Your task to perform on an android device: Toggle the flashlight Image 0: 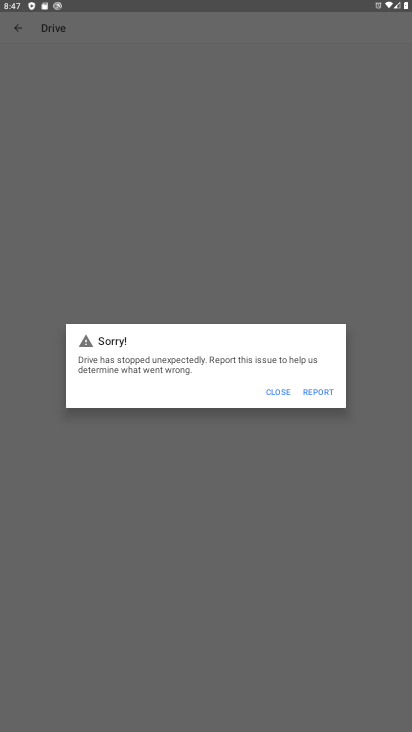
Step 0: press home button
Your task to perform on an android device: Toggle the flashlight Image 1: 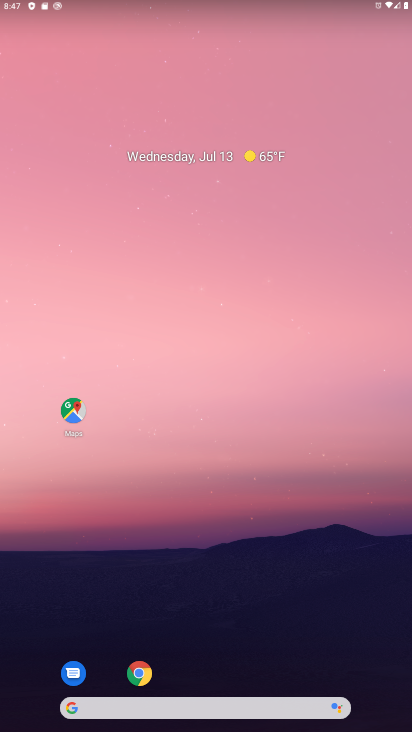
Step 1: drag from (174, 708) to (248, 134)
Your task to perform on an android device: Toggle the flashlight Image 2: 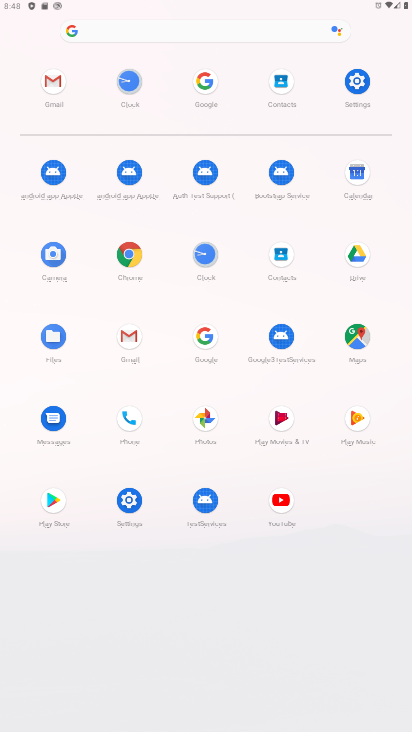
Step 2: click (359, 79)
Your task to perform on an android device: Toggle the flashlight Image 3: 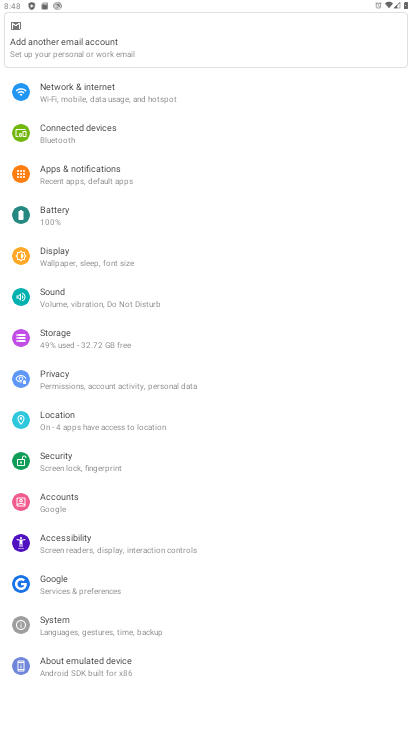
Step 3: click (91, 173)
Your task to perform on an android device: Toggle the flashlight Image 4: 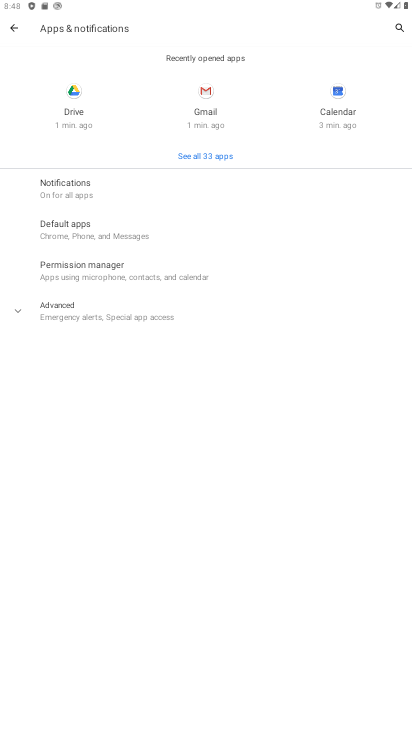
Step 4: press back button
Your task to perform on an android device: Toggle the flashlight Image 5: 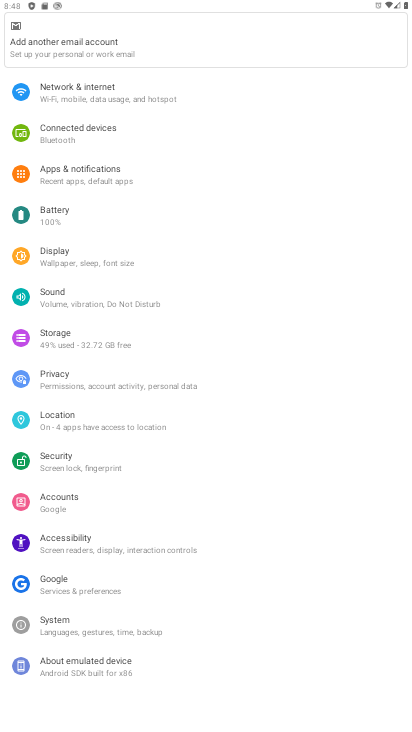
Step 5: click (84, 268)
Your task to perform on an android device: Toggle the flashlight Image 6: 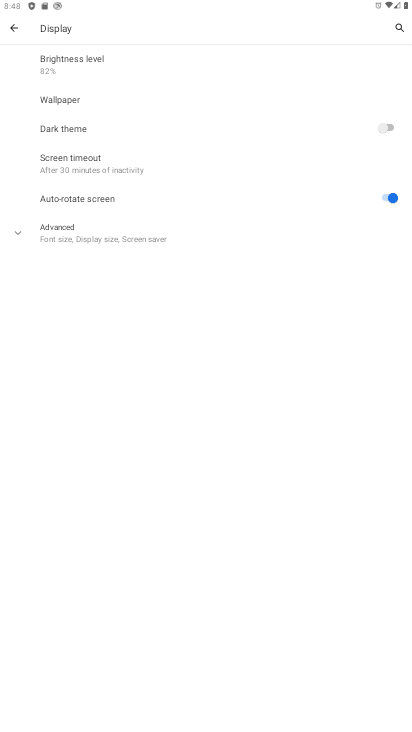
Step 6: click (83, 240)
Your task to perform on an android device: Toggle the flashlight Image 7: 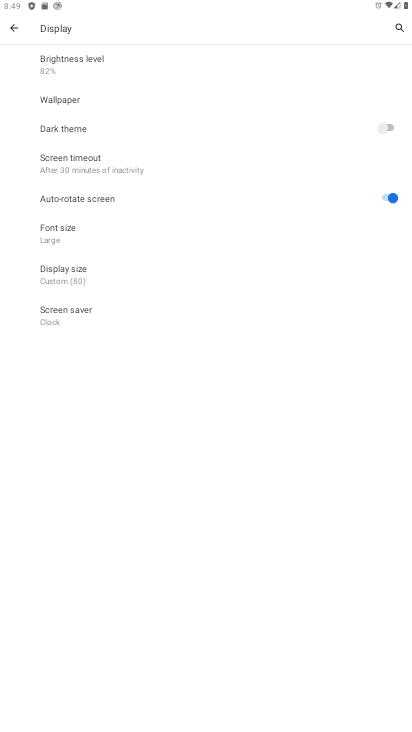
Step 7: click (77, 311)
Your task to perform on an android device: Toggle the flashlight Image 8: 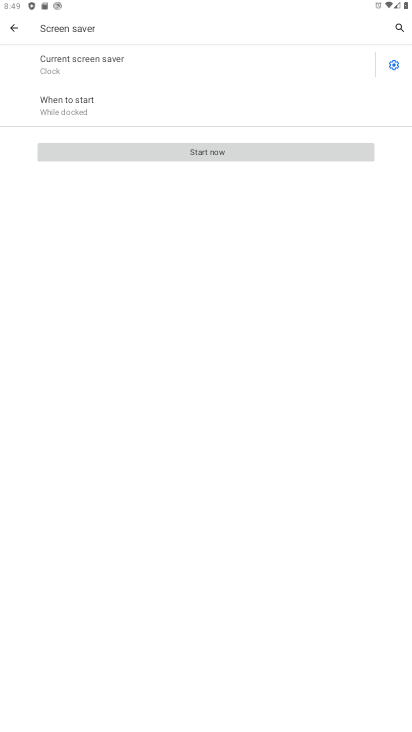
Step 8: task complete